Your task to perform on an android device: turn on improve location accuracy Image 0: 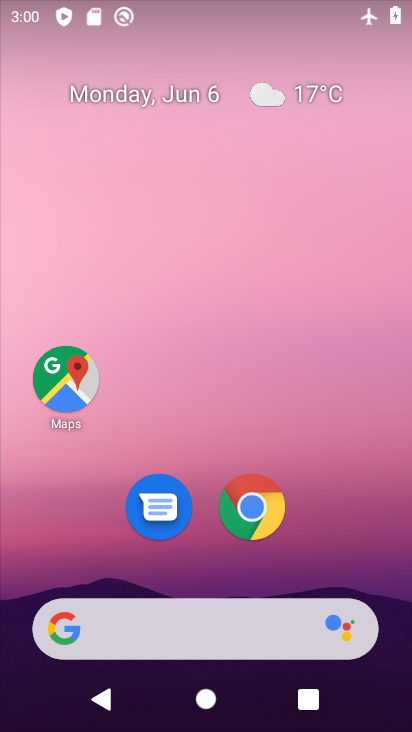
Step 0: press home button
Your task to perform on an android device: turn on improve location accuracy Image 1: 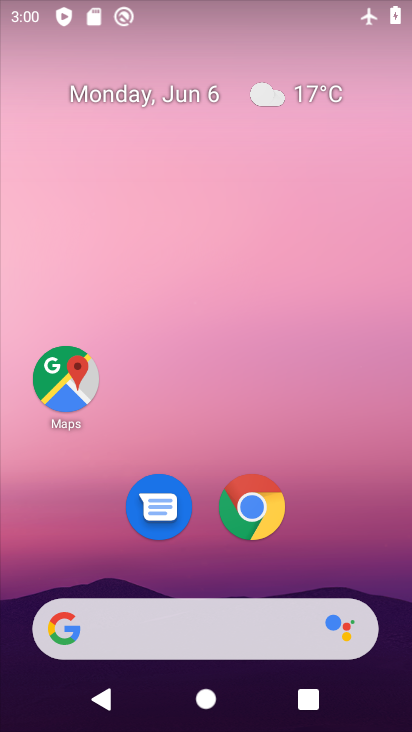
Step 1: drag from (355, 516) to (349, 98)
Your task to perform on an android device: turn on improve location accuracy Image 2: 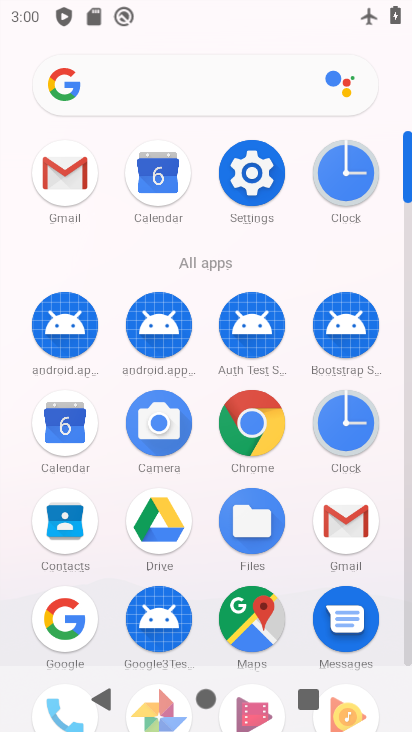
Step 2: click (262, 168)
Your task to perform on an android device: turn on improve location accuracy Image 3: 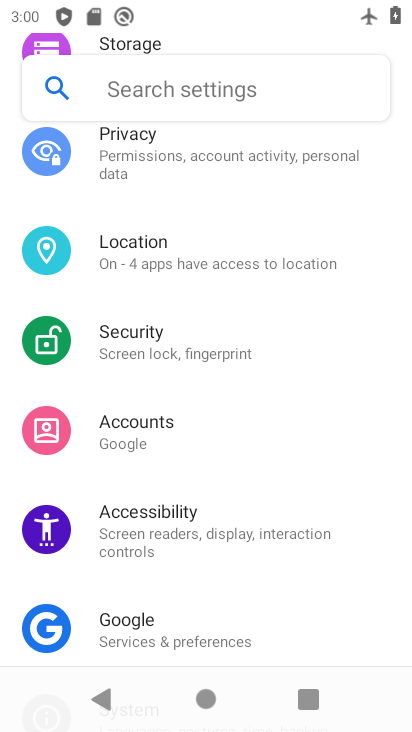
Step 3: click (235, 253)
Your task to perform on an android device: turn on improve location accuracy Image 4: 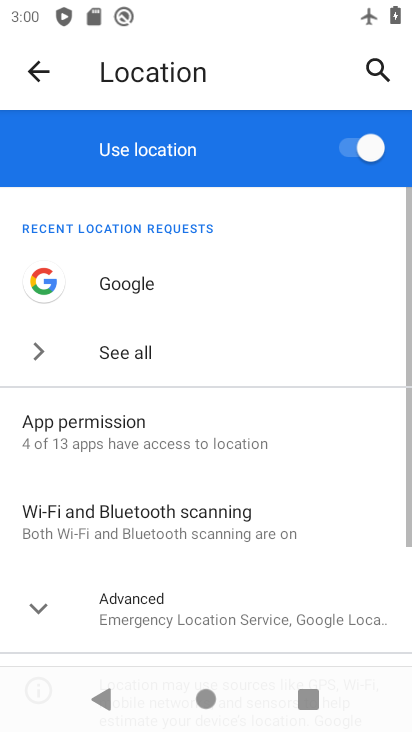
Step 4: drag from (340, 484) to (331, 289)
Your task to perform on an android device: turn on improve location accuracy Image 5: 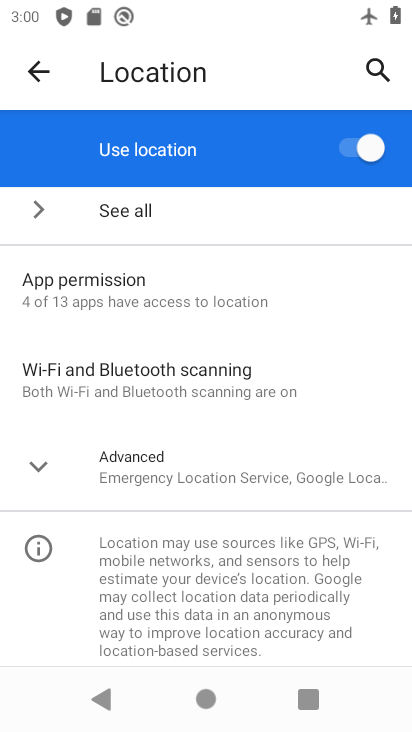
Step 5: click (42, 469)
Your task to perform on an android device: turn on improve location accuracy Image 6: 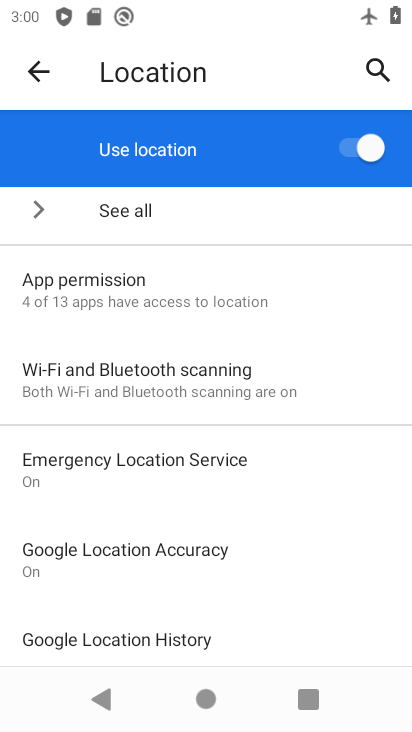
Step 6: click (131, 557)
Your task to perform on an android device: turn on improve location accuracy Image 7: 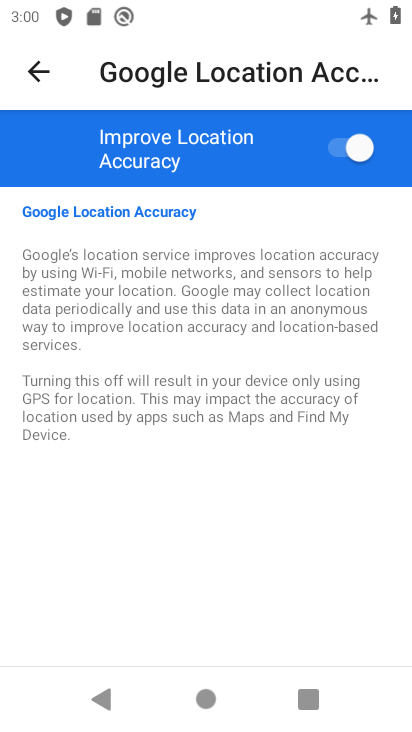
Step 7: task complete